Your task to perform on an android device: Do I have any events this weekend? Image 0: 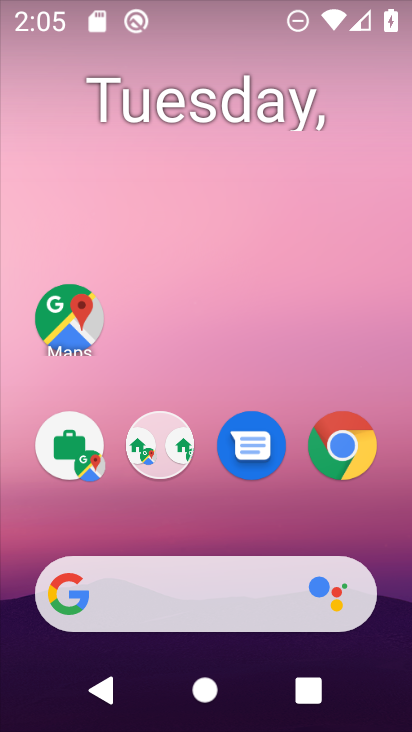
Step 0: drag from (293, 529) to (326, 170)
Your task to perform on an android device: Do I have any events this weekend? Image 1: 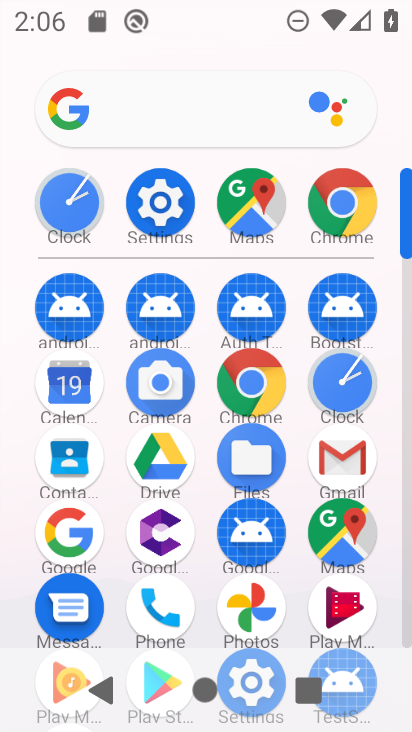
Step 1: click (87, 399)
Your task to perform on an android device: Do I have any events this weekend? Image 2: 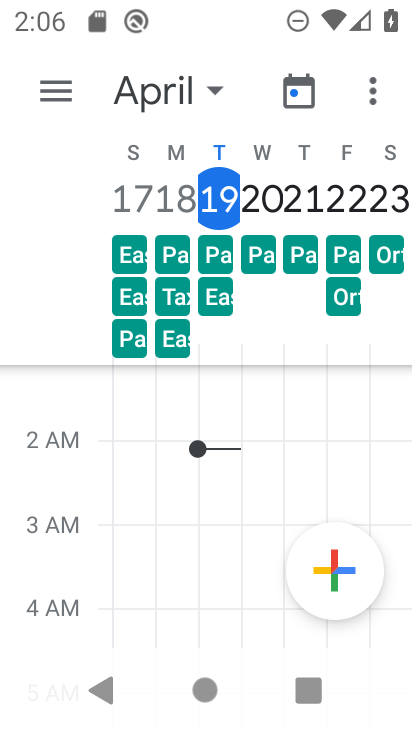
Step 2: drag from (158, 536) to (243, 219)
Your task to perform on an android device: Do I have any events this weekend? Image 3: 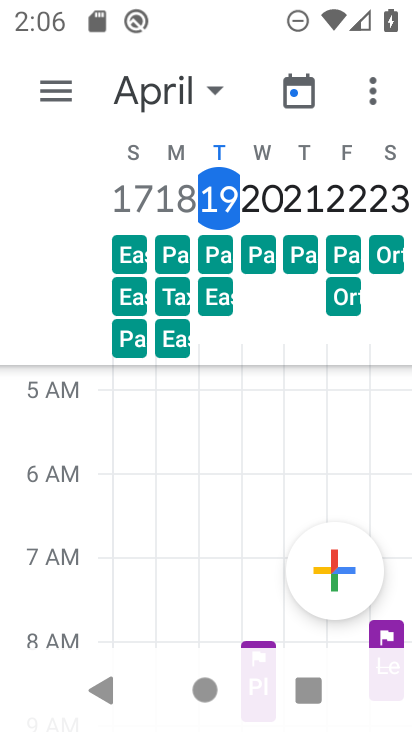
Step 3: drag from (188, 469) to (241, 242)
Your task to perform on an android device: Do I have any events this weekend? Image 4: 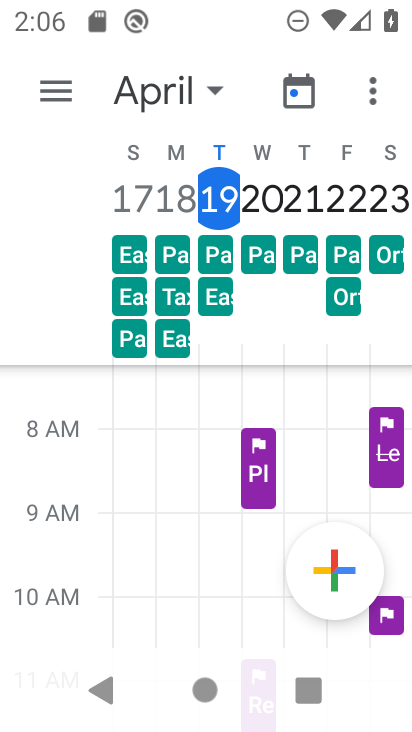
Step 4: click (262, 452)
Your task to perform on an android device: Do I have any events this weekend? Image 5: 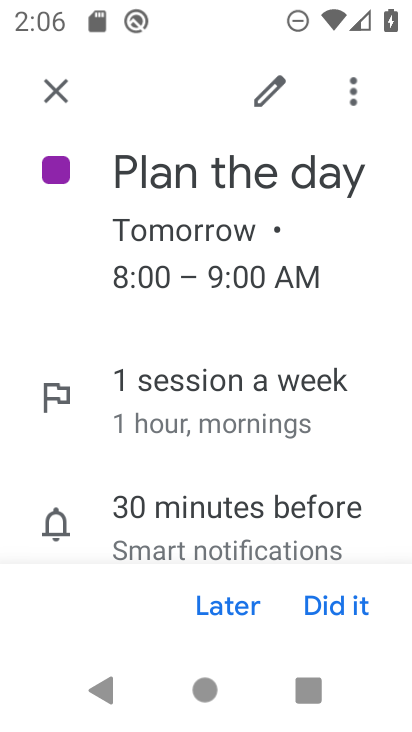
Step 5: task complete